Your task to perform on an android device: turn off smart reply in the gmail app Image 0: 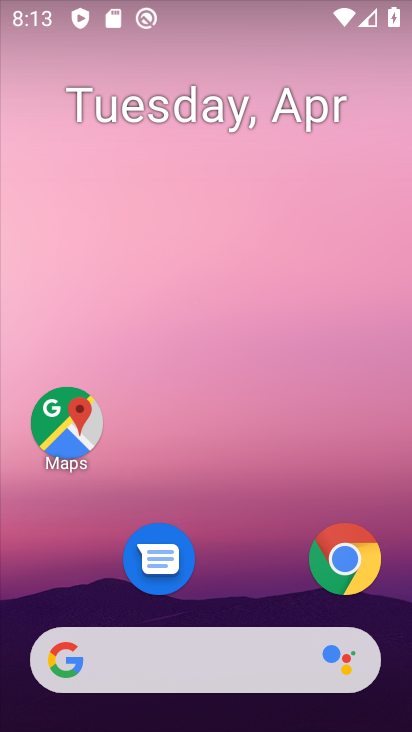
Step 0: drag from (259, 697) to (242, 310)
Your task to perform on an android device: turn off smart reply in the gmail app Image 1: 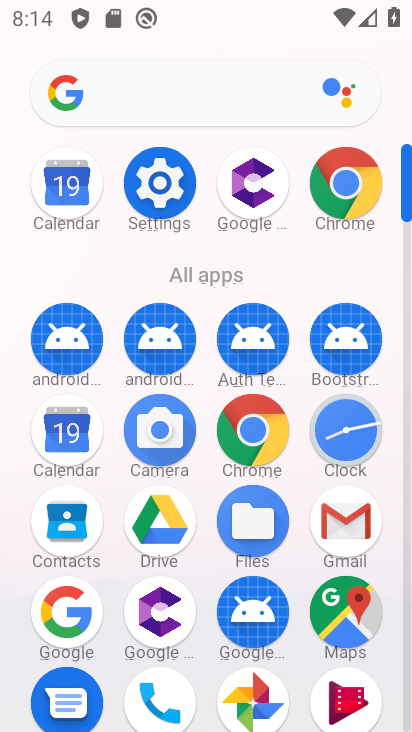
Step 1: click (336, 517)
Your task to perform on an android device: turn off smart reply in the gmail app Image 2: 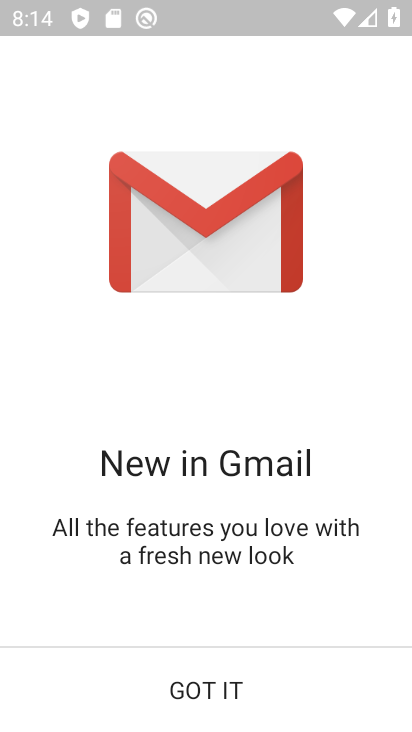
Step 2: click (180, 687)
Your task to perform on an android device: turn off smart reply in the gmail app Image 3: 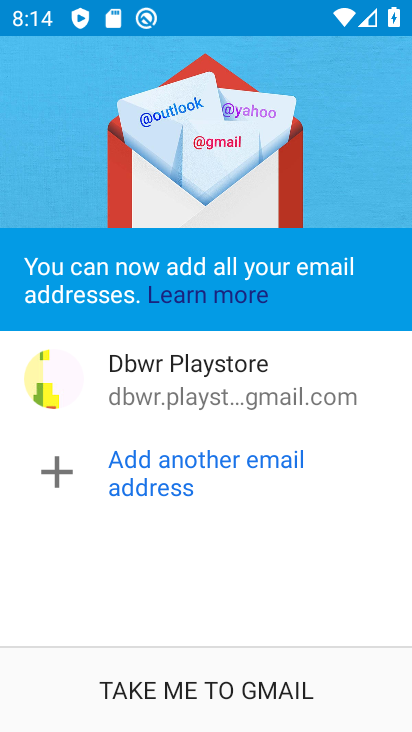
Step 3: click (180, 687)
Your task to perform on an android device: turn off smart reply in the gmail app Image 4: 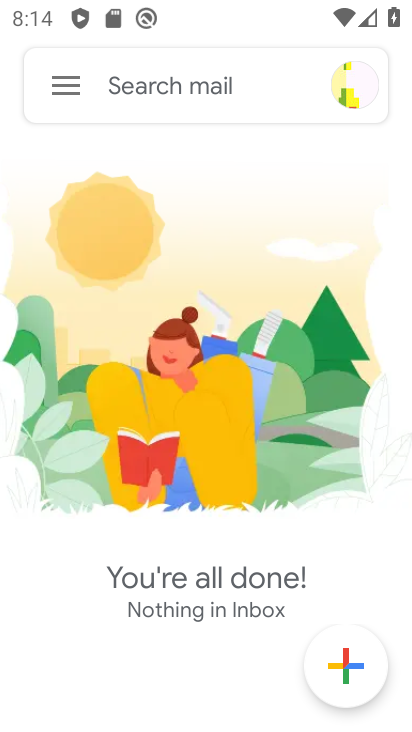
Step 4: click (60, 76)
Your task to perform on an android device: turn off smart reply in the gmail app Image 5: 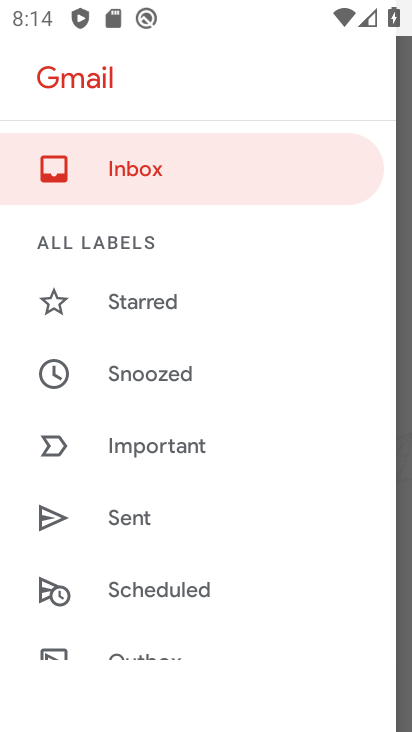
Step 5: drag from (161, 493) to (174, 107)
Your task to perform on an android device: turn off smart reply in the gmail app Image 6: 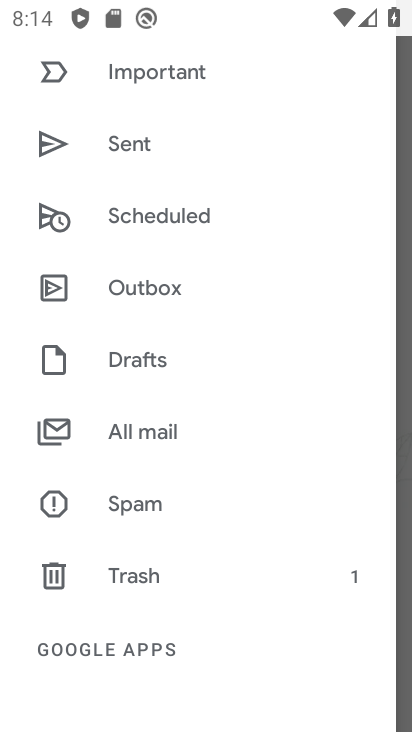
Step 6: drag from (113, 510) to (120, 343)
Your task to perform on an android device: turn off smart reply in the gmail app Image 7: 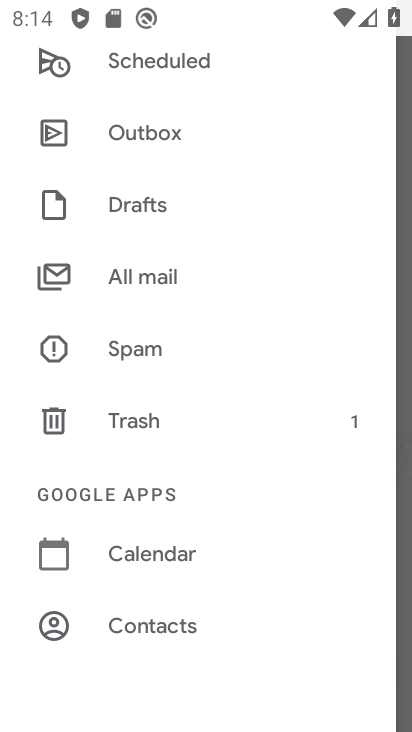
Step 7: drag from (101, 580) to (112, 468)
Your task to perform on an android device: turn off smart reply in the gmail app Image 8: 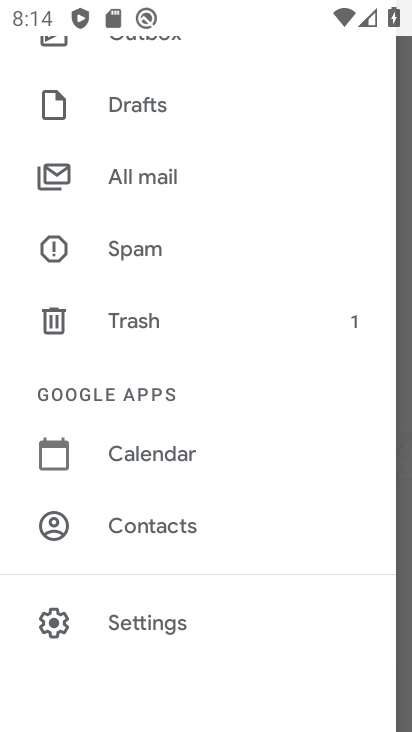
Step 8: click (116, 617)
Your task to perform on an android device: turn off smart reply in the gmail app Image 9: 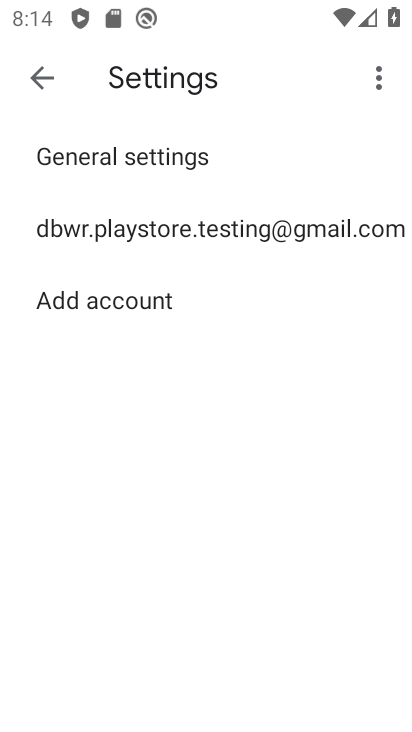
Step 9: click (161, 237)
Your task to perform on an android device: turn off smart reply in the gmail app Image 10: 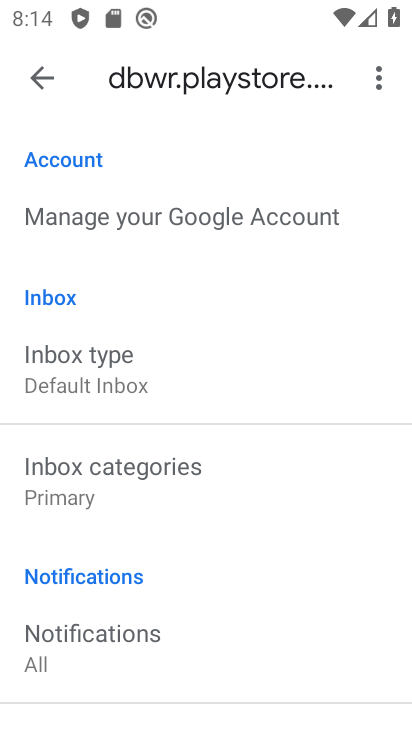
Step 10: drag from (175, 641) to (165, 182)
Your task to perform on an android device: turn off smart reply in the gmail app Image 11: 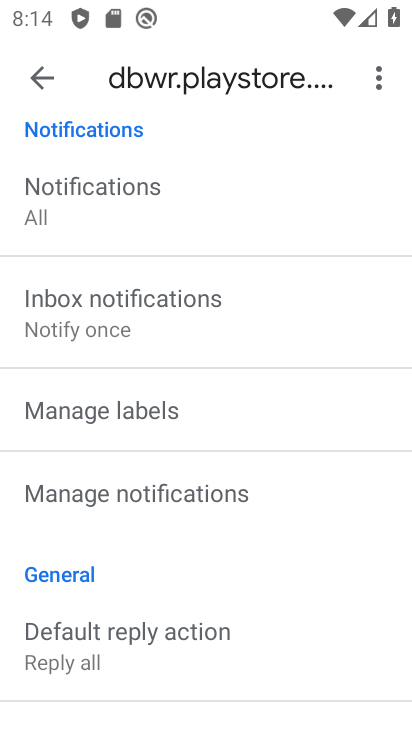
Step 11: drag from (119, 557) to (146, 136)
Your task to perform on an android device: turn off smart reply in the gmail app Image 12: 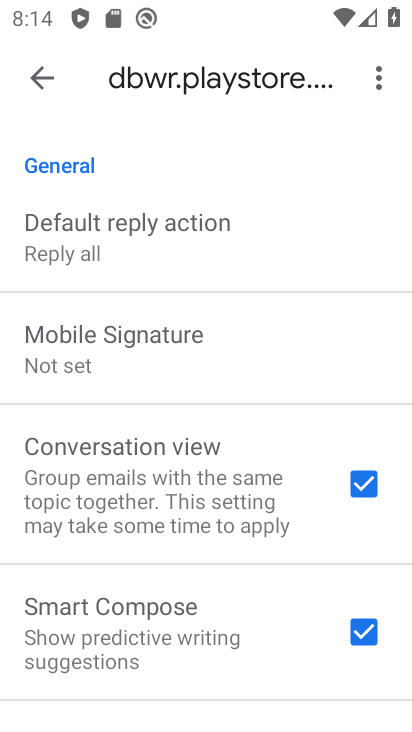
Step 12: drag from (170, 563) to (205, 270)
Your task to perform on an android device: turn off smart reply in the gmail app Image 13: 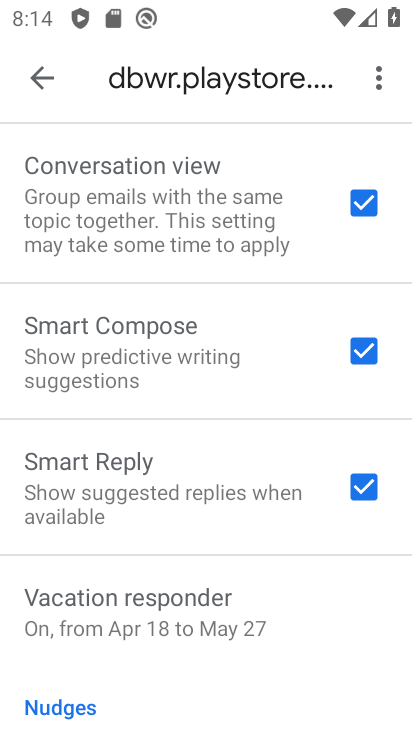
Step 13: click (374, 486)
Your task to perform on an android device: turn off smart reply in the gmail app Image 14: 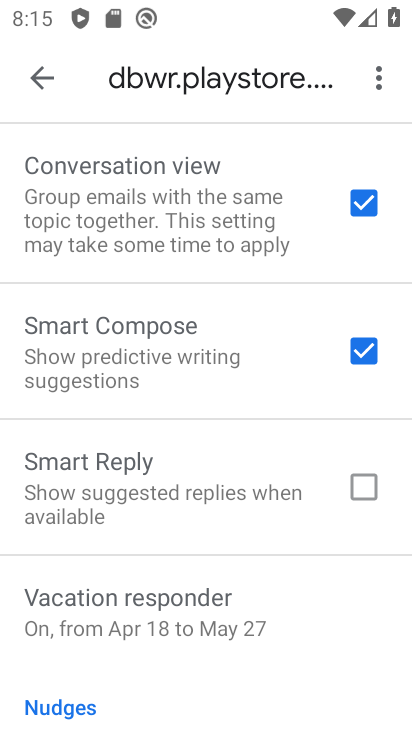
Step 14: task complete